Your task to perform on an android device: turn off priority inbox in the gmail app Image 0: 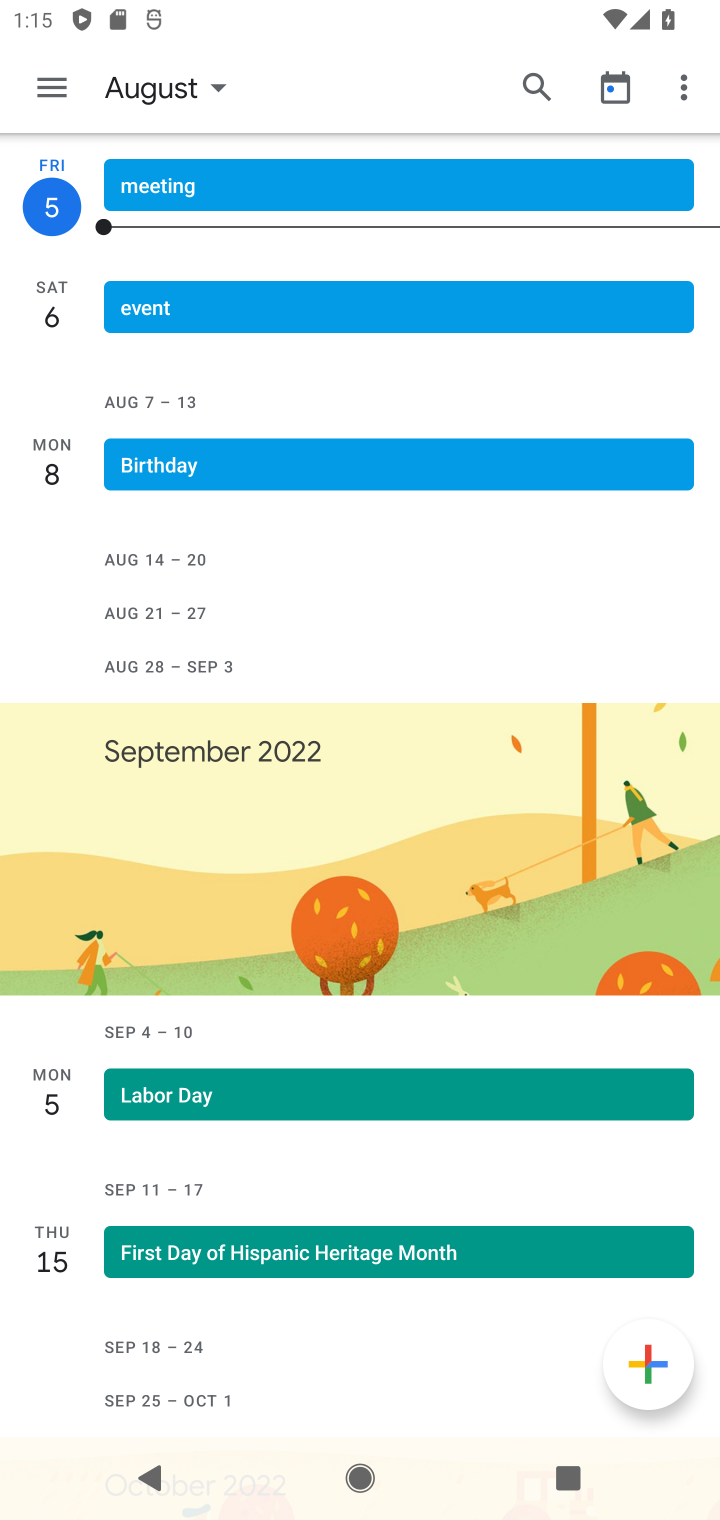
Step 0: press home button
Your task to perform on an android device: turn off priority inbox in the gmail app Image 1: 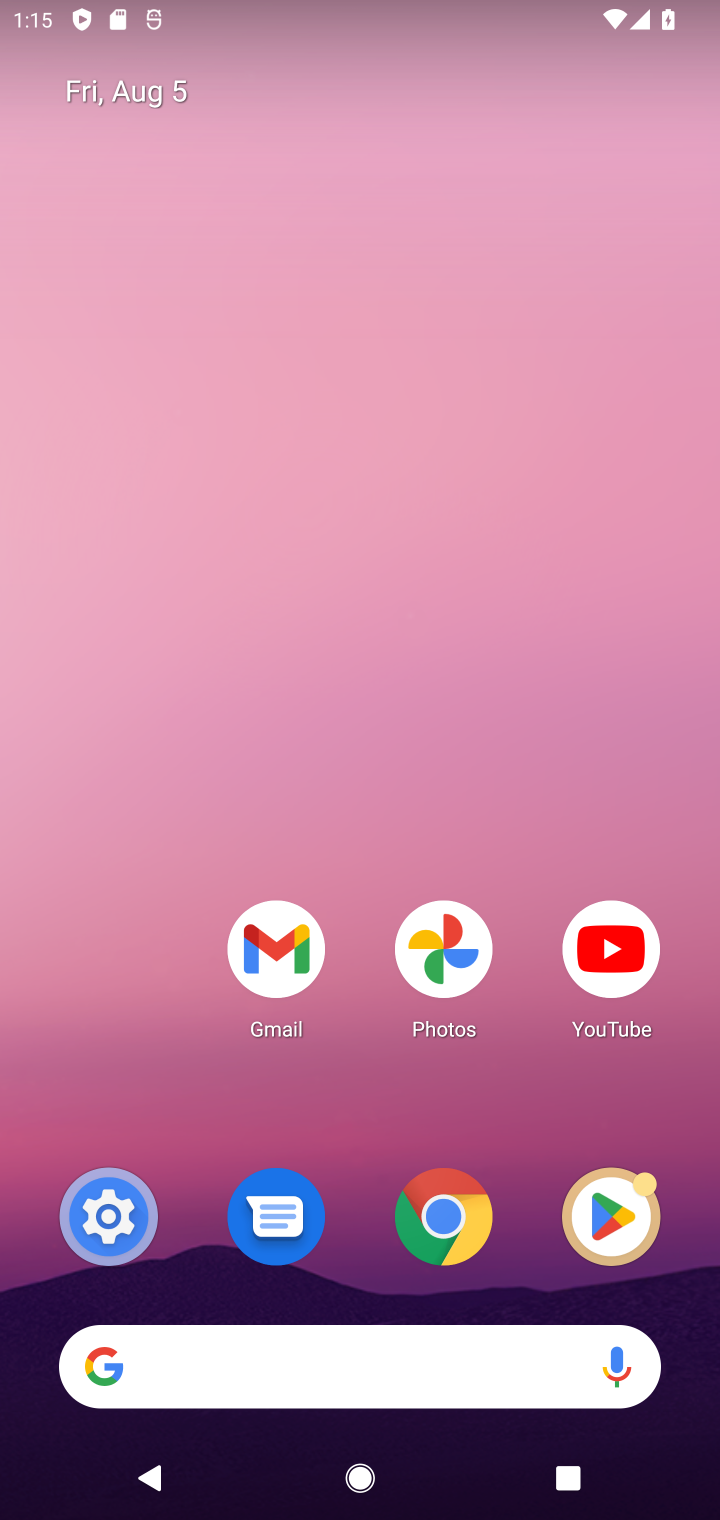
Step 1: click (295, 954)
Your task to perform on an android device: turn off priority inbox in the gmail app Image 2: 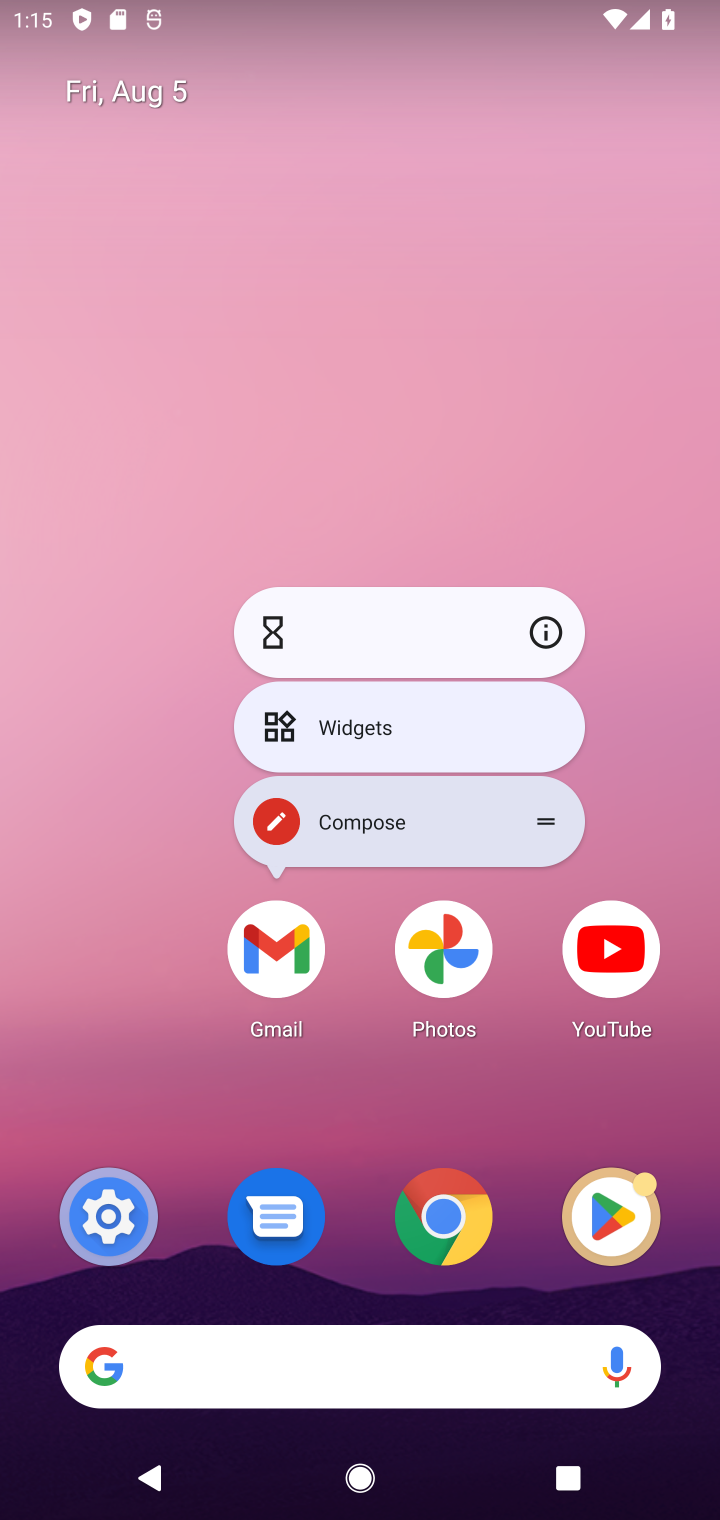
Step 2: click (287, 954)
Your task to perform on an android device: turn off priority inbox in the gmail app Image 3: 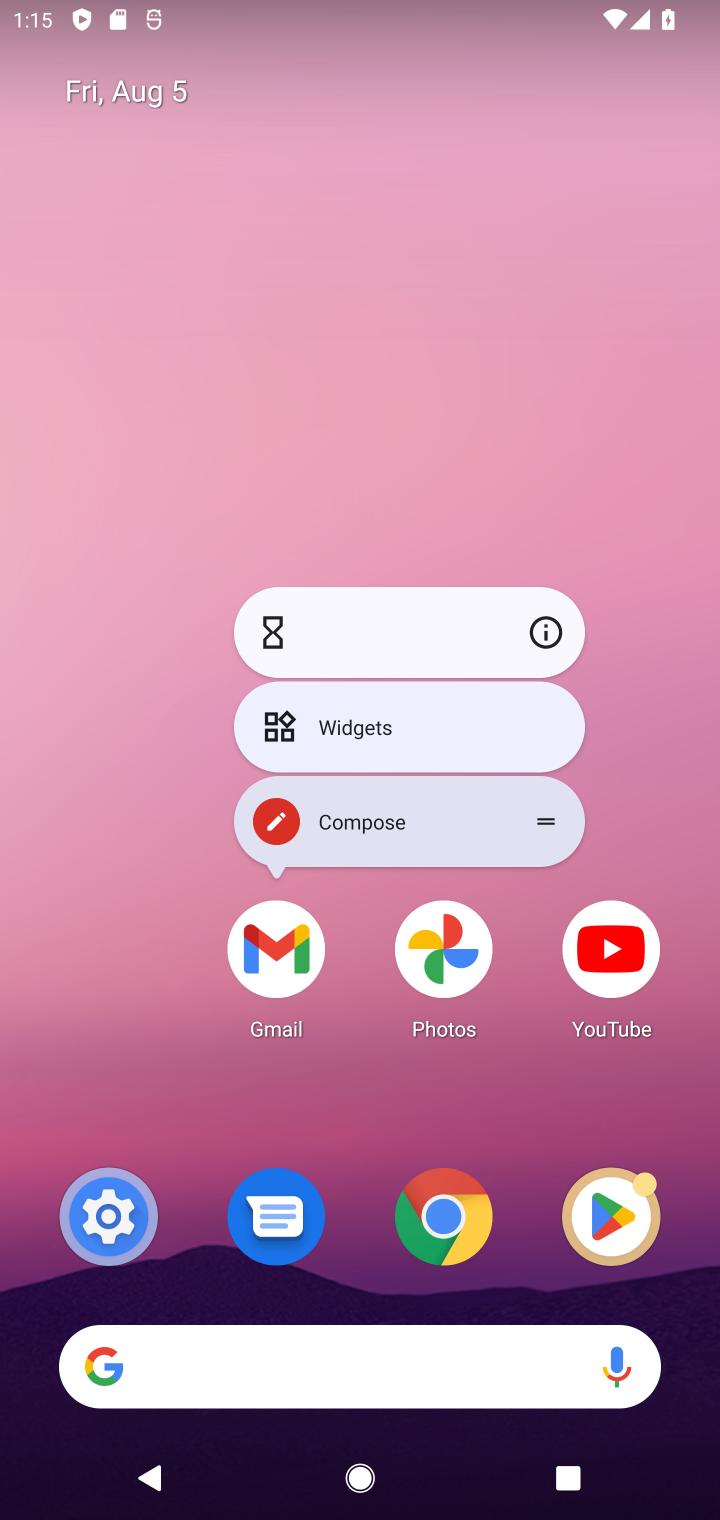
Step 3: click (287, 954)
Your task to perform on an android device: turn off priority inbox in the gmail app Image 4: 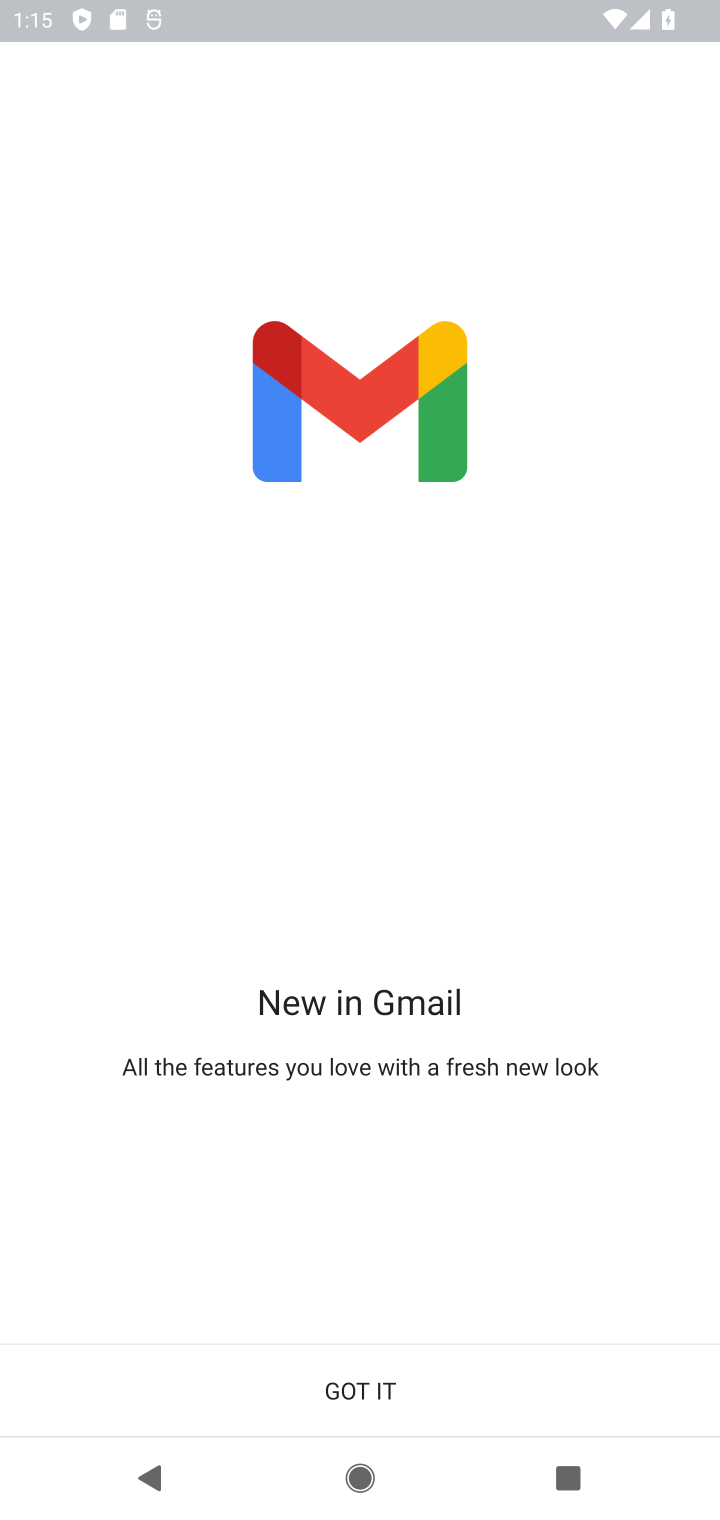
Step 4: click (424, 1386)
Your task to perform on an android device: turn off priority inbox in the gmail app Image 5: 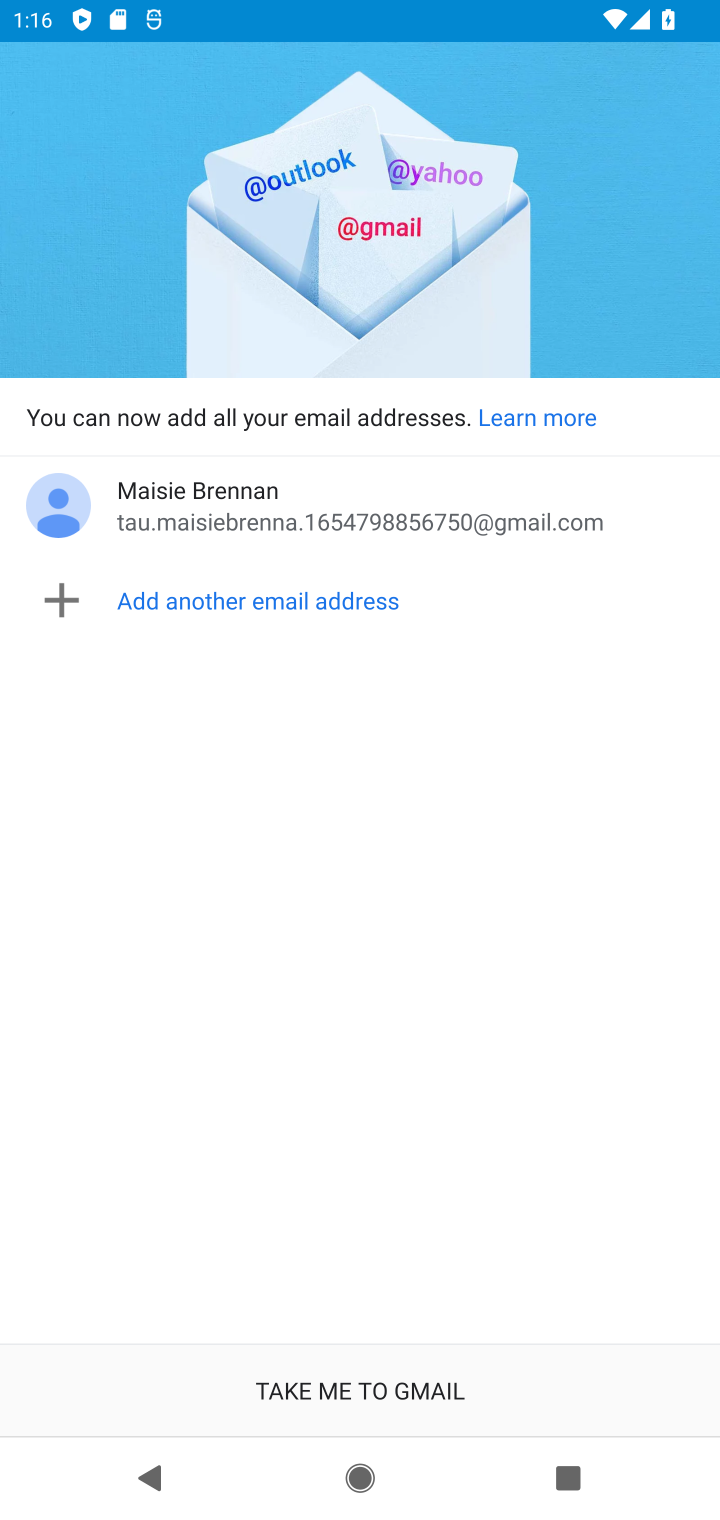
Step 5: click (331, 1382)
Your task to perform on an android device: turn off priority inbox in the gmail app Image 6: 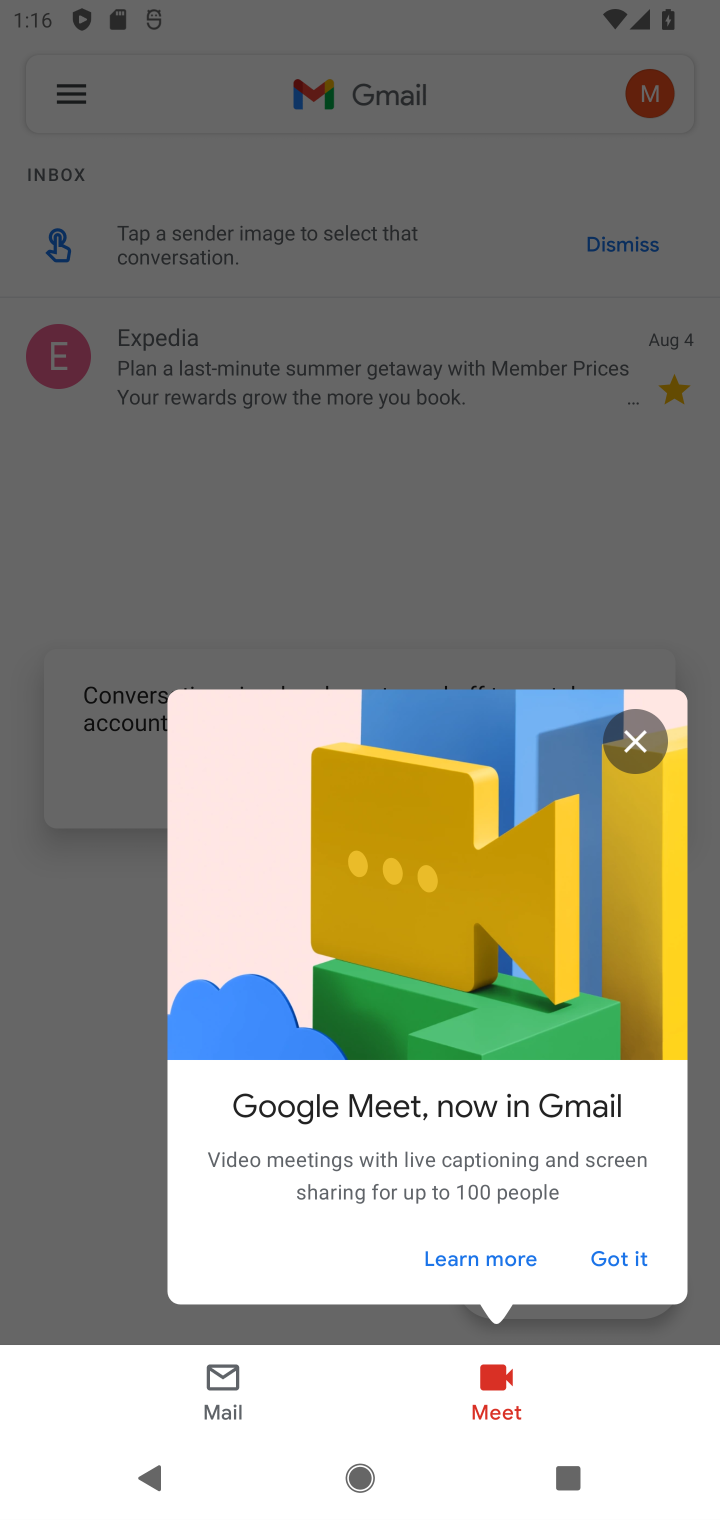
Step 6: click (642, 739)
Your task to perform on an android device: turn off priority inbox in the gmail app Image 7: 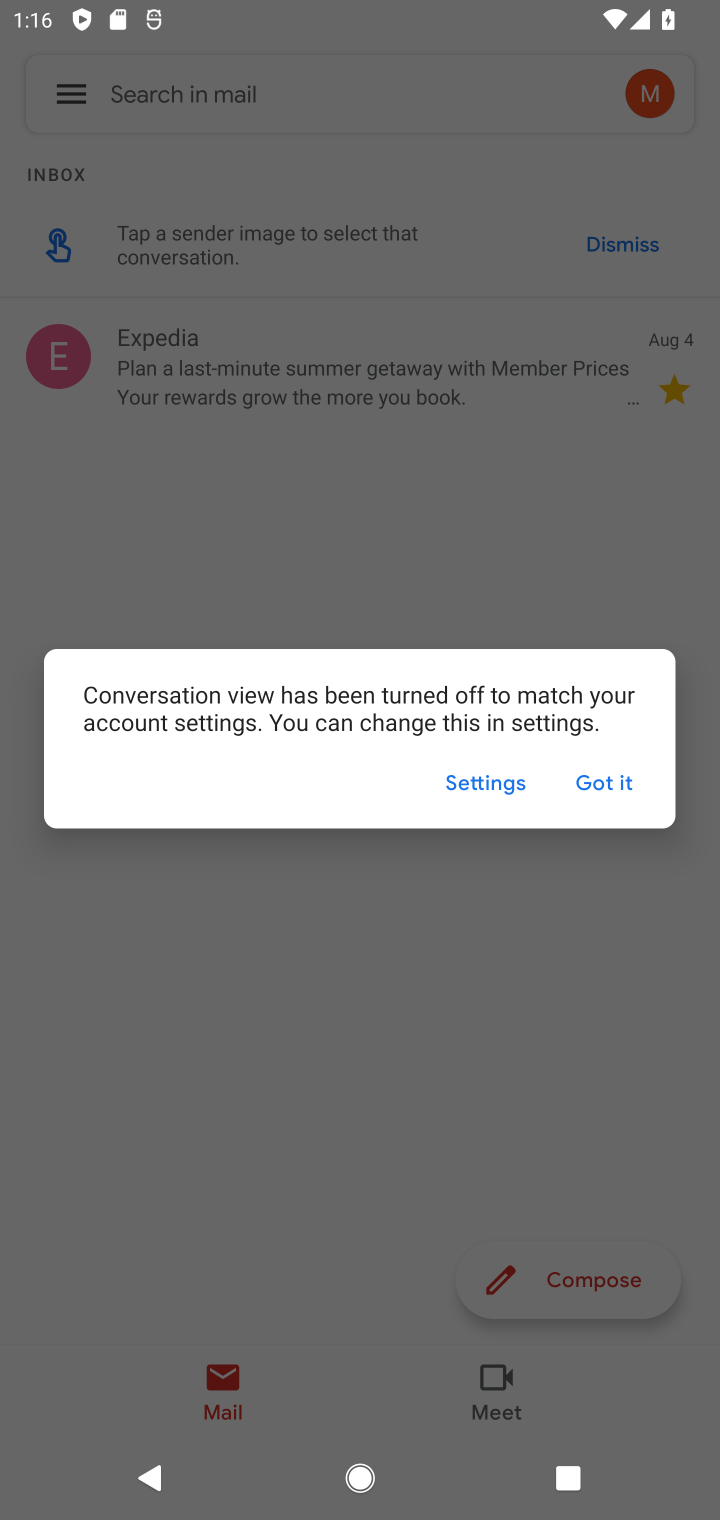
Step 7: click (611, 780)
Your task to perform on an android device: turn off priority inbox in the gmail app Image 8: 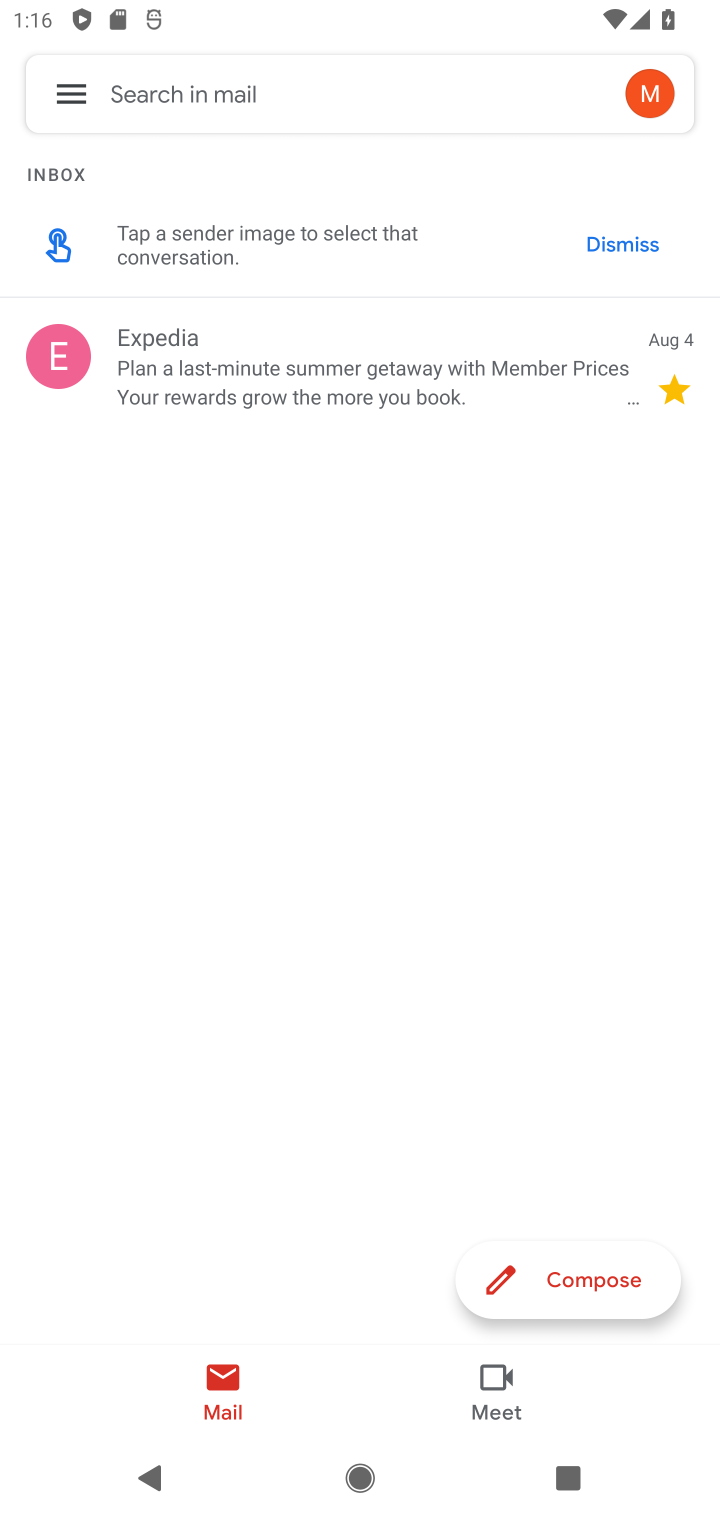
Step 8: click (83, 80)
Your task to perform on an android device: turn off priority inbox in the gmail app Image 9: 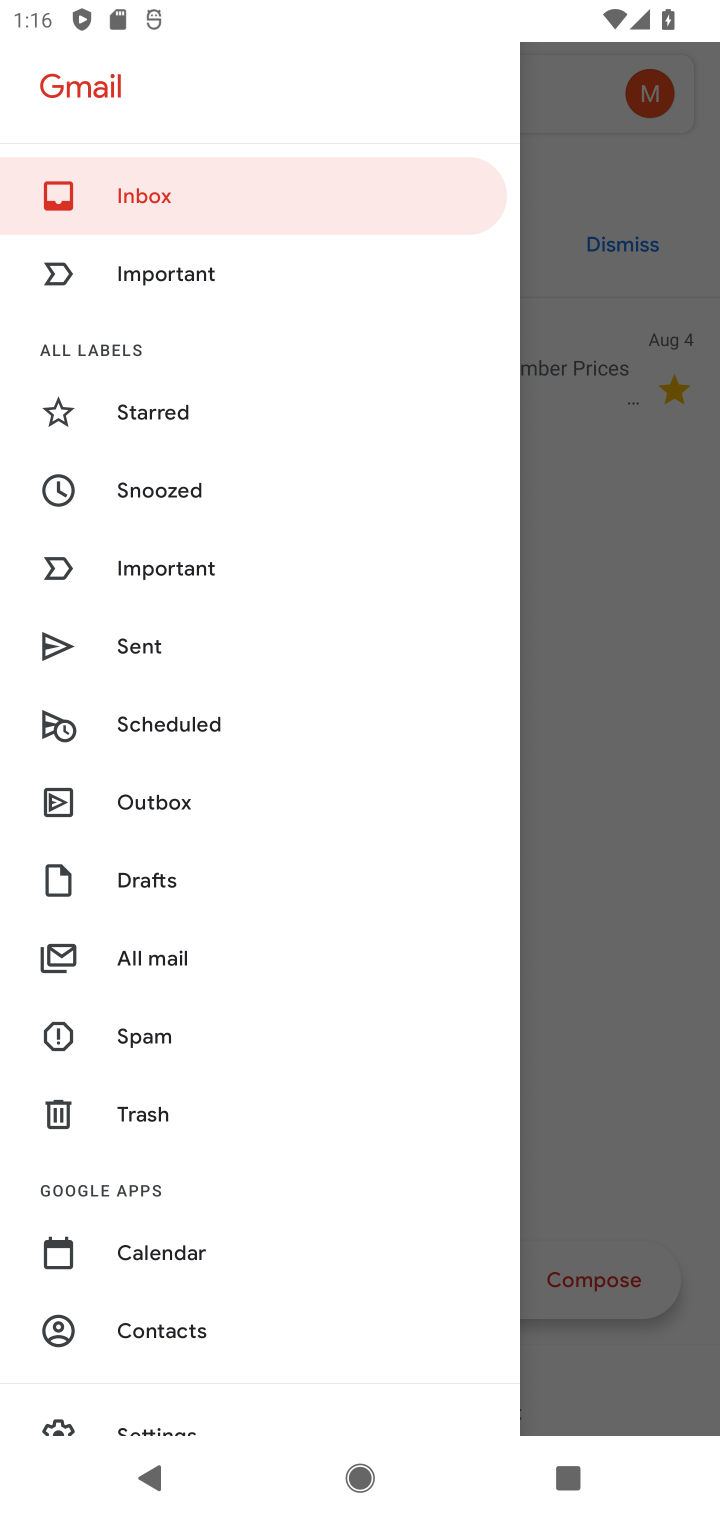
Step 9: drag from (189, 1287) to (220, 425)
Your task to perform on an android device: turn off priority inbox in the gmail app Image 10: 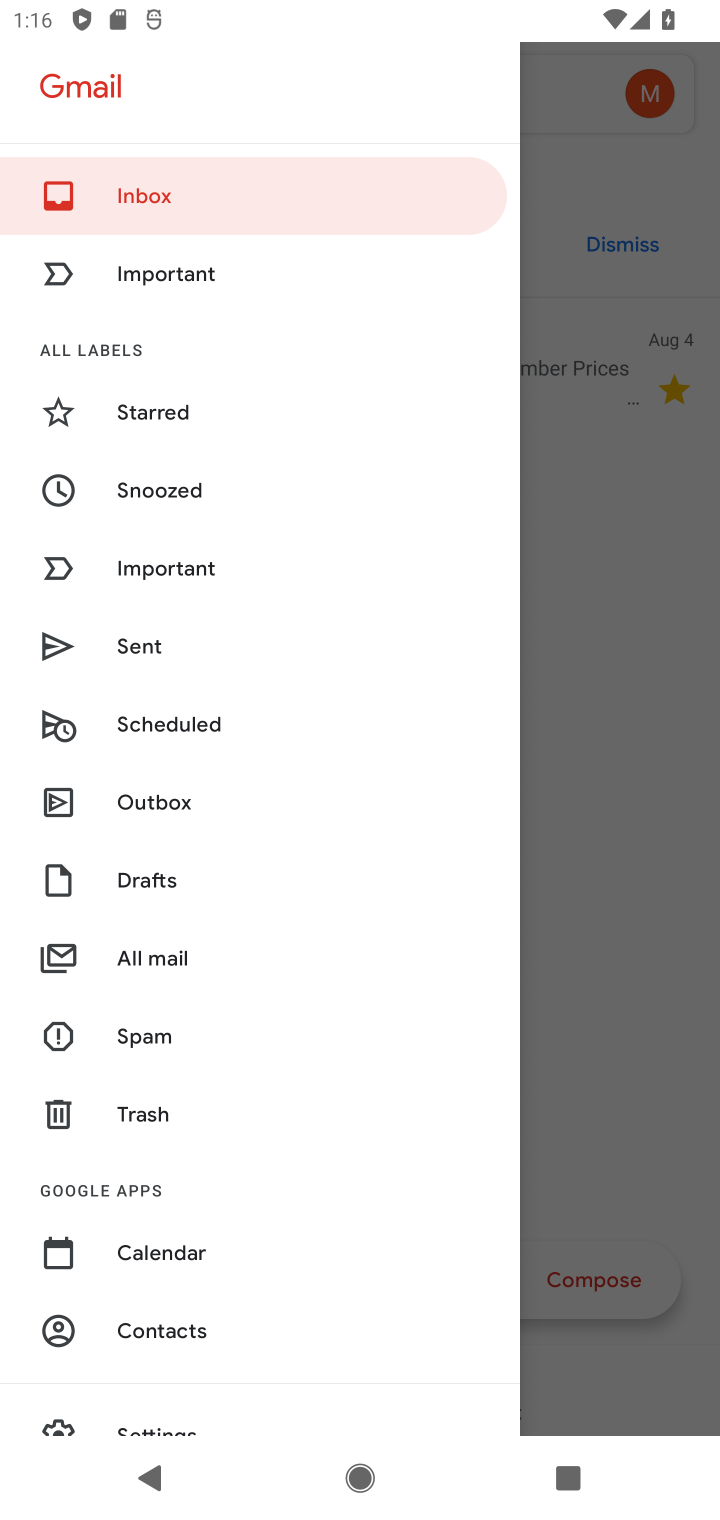
Step 10: click (206, 1412)
Your task to perform on an android device: turn off priority inbox in the gmail app Image 11: 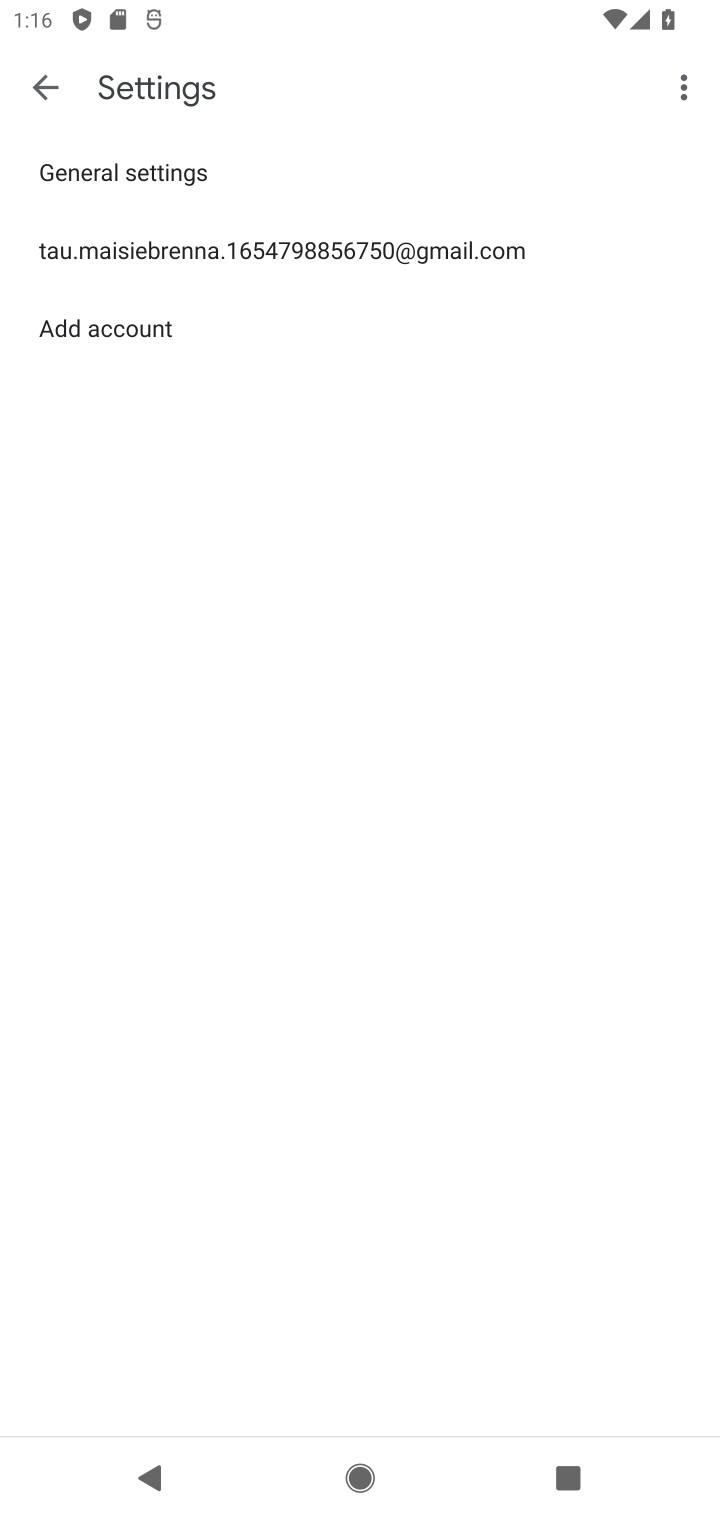
Step 11: click (544, 280)
Your task to perform on an android device: turn off priority inbox in the gmail app Image 12: 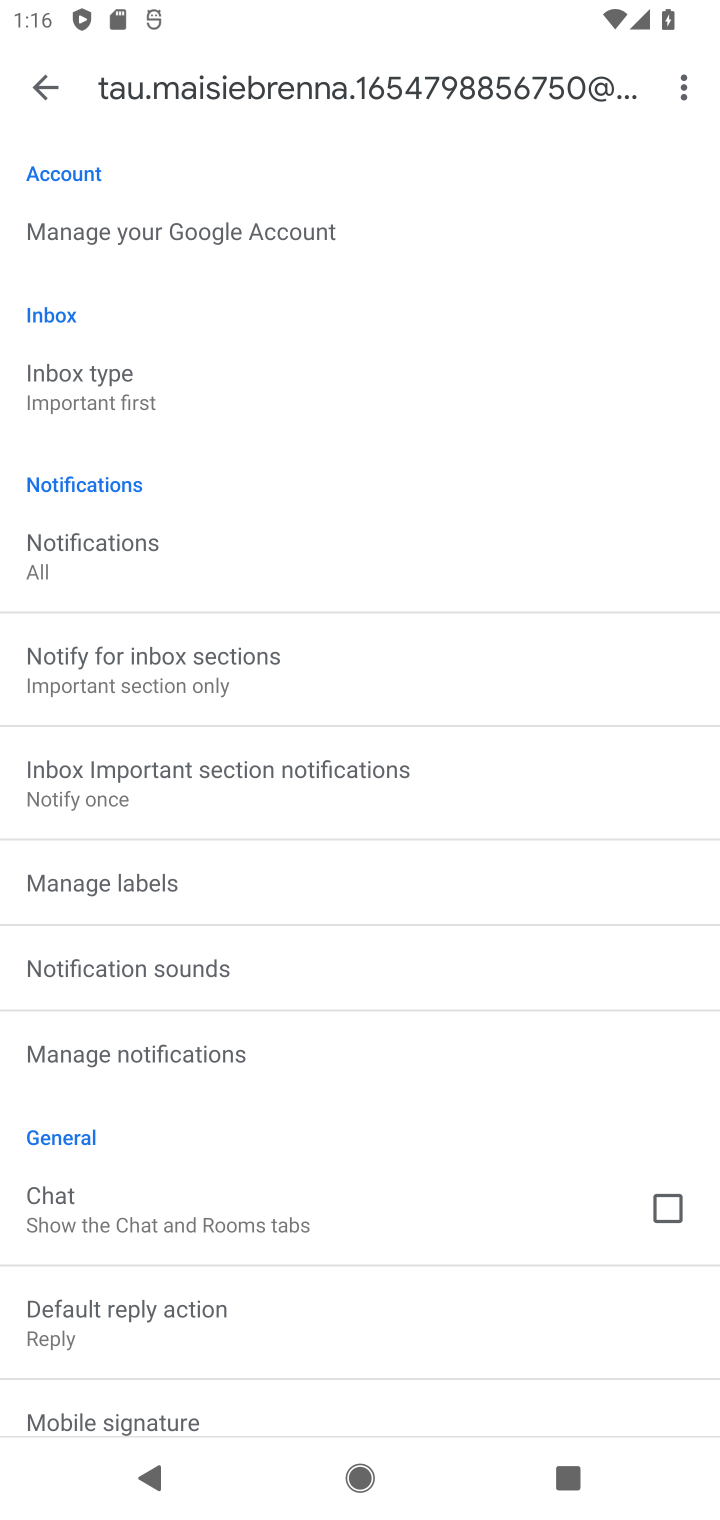
Step 12: click (208, 364)
Your task to perform on an android device: turn off priority inbox in the gmail app Image 13: 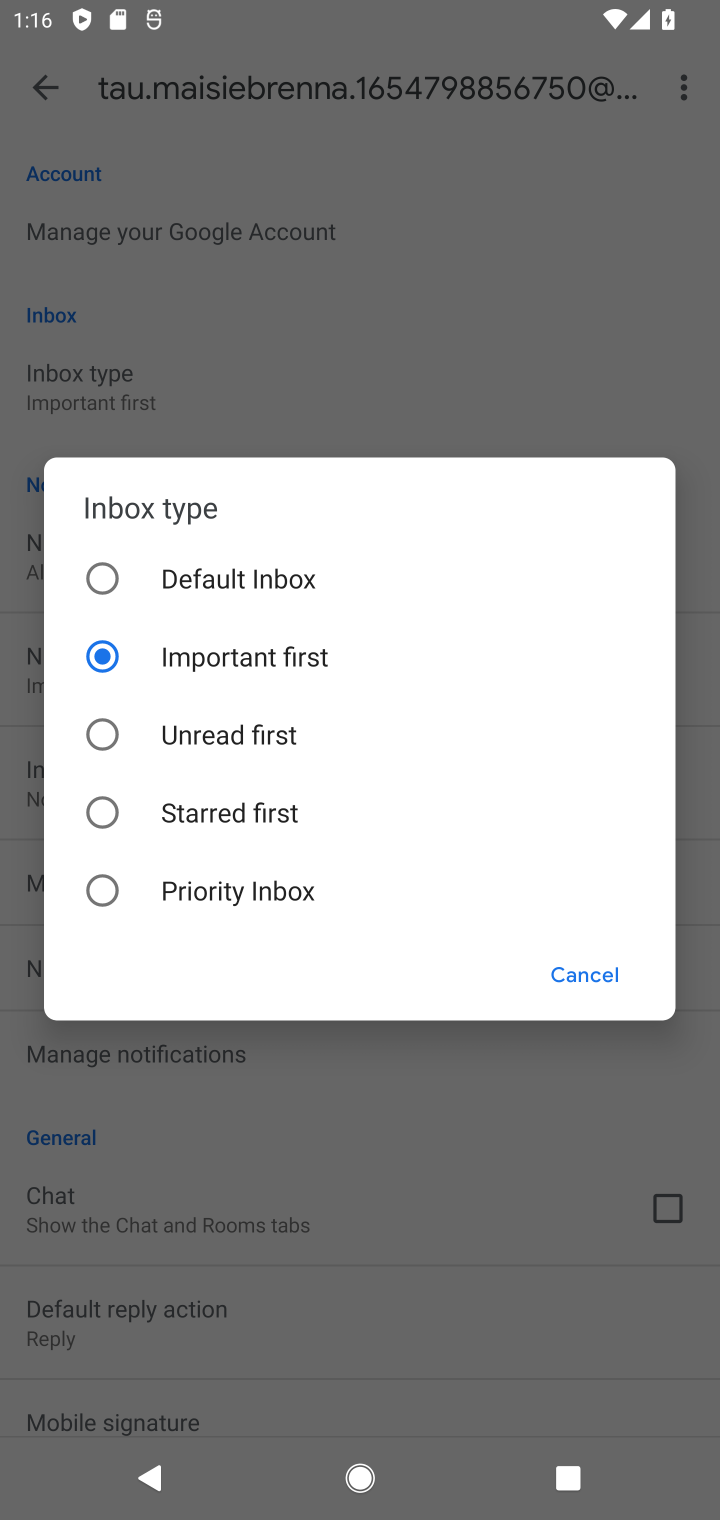
Step 13: task complete